Your task to perform on an android device: find snoozed emails in the gmail app Image 0: 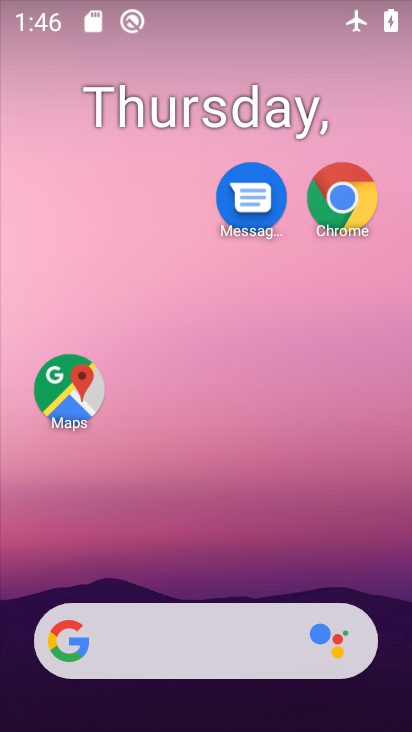
Step 0: click (218, 390)
Your task to perform on an android device: find snoozed emails in the gmail app Image 1: 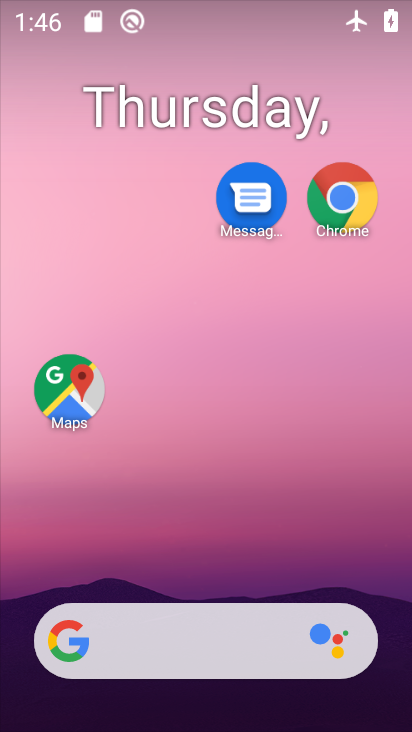
Step 1: drag from (230, 551) to (274, 53)
Your task to perform on an android device: find snoozed emails in the gmail app Image 2: 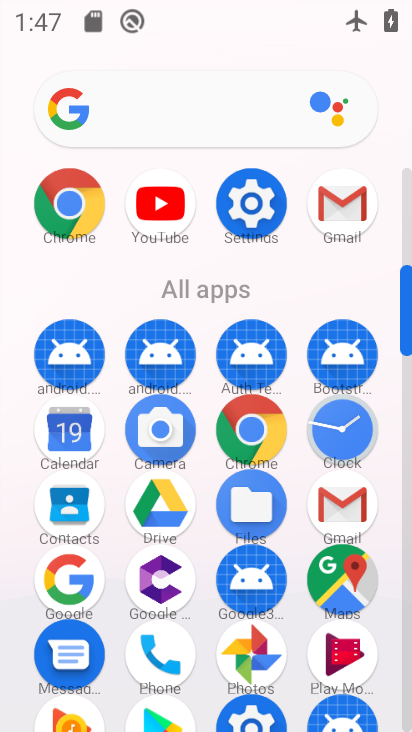
Step 2: click (347, 515)
Your task to perform on an android device: find snoozed emails in the gmail app Image 3: 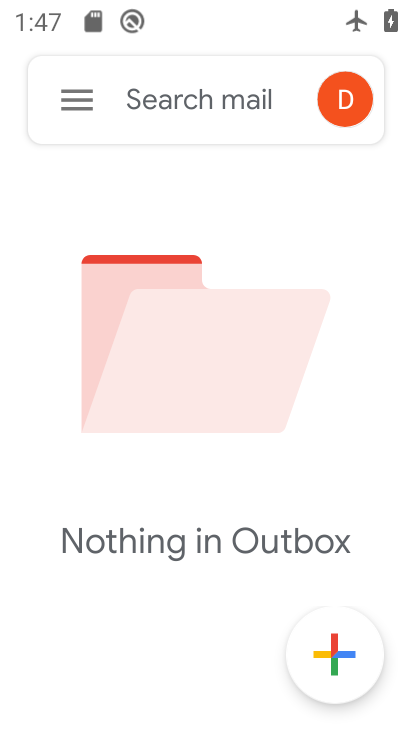
Step 3: click (76, 95)
Your task to perform on an android device: find snoozed emails in the gmail app Image 4: 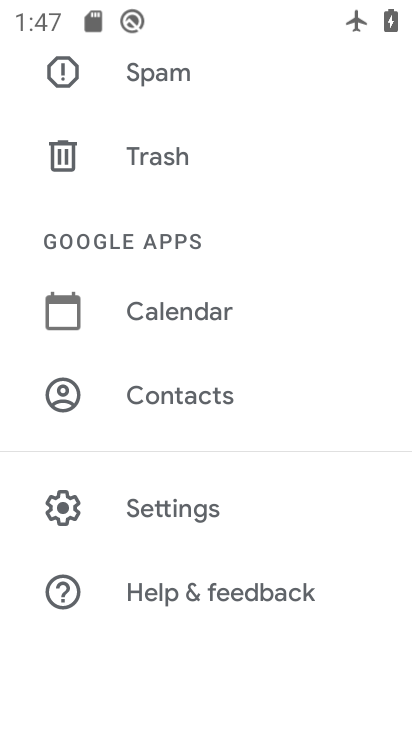
Step 4: drag from (206, 298) to (198, 578)
Your task to perform on an android device: find snoozed emails in the gmail app Image 5: 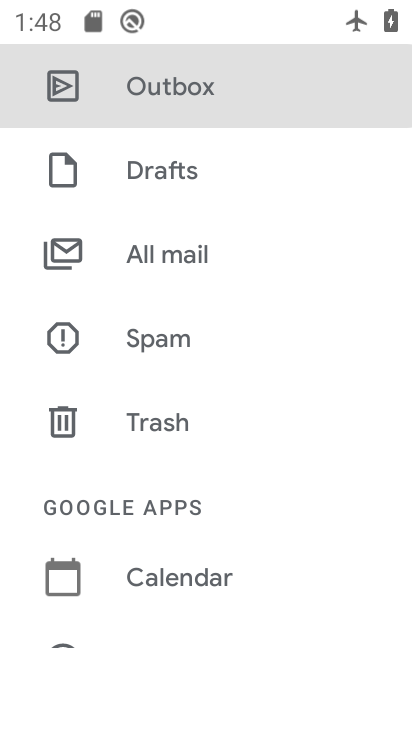
Step 5: drag from (248, 232) to (219, 497)
Your task to perform on an android device: find snoozed emails in the gmail app Image 6: 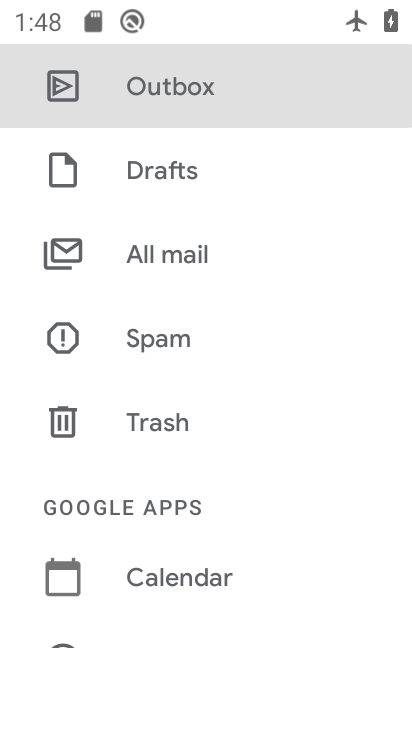
Step 6: click (183, 491)
Your task to perform on an android device: find snoozed emails in the gmail app Image 7: 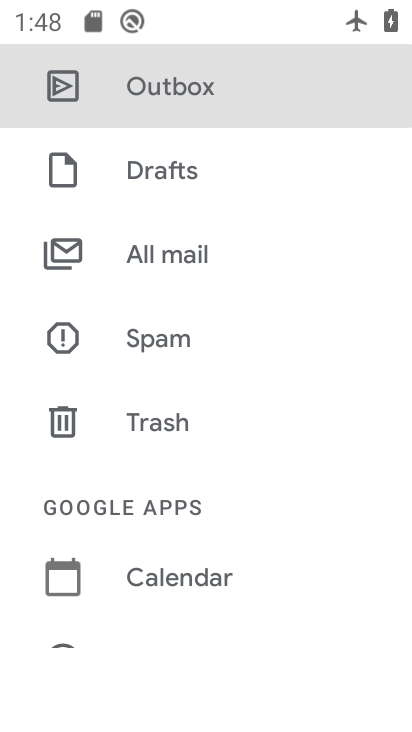
Step 7: drag from (205, 243) to (180, 505)
Your task to perform on an android device: find snoozed emails in the gmail app Image 8: 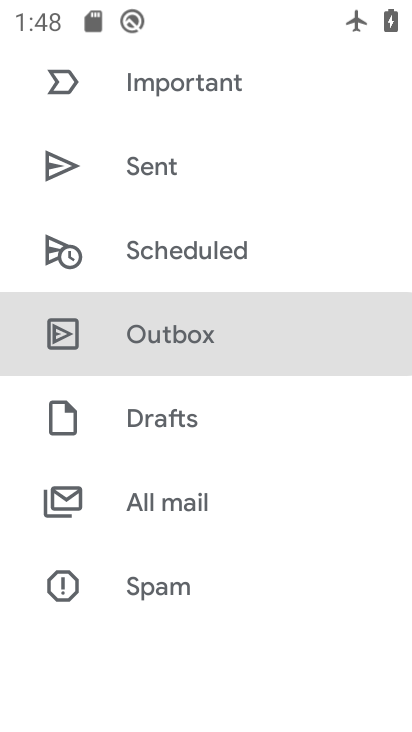
Step 8: drag from (191, 455) to (172, 653)
Your task to perform on an android device: find snoozed emails in the gmail app Image 9: 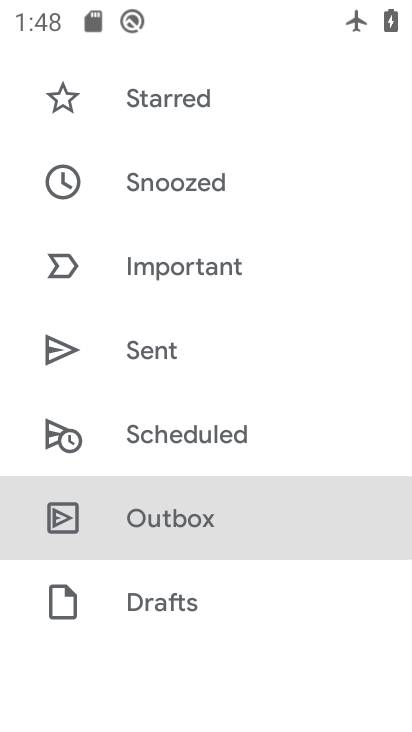
Step 9: drag from (243, 257) to (176, 616)
Your task to perform on an android device: find snoozed emails in the gmail app Image 10: 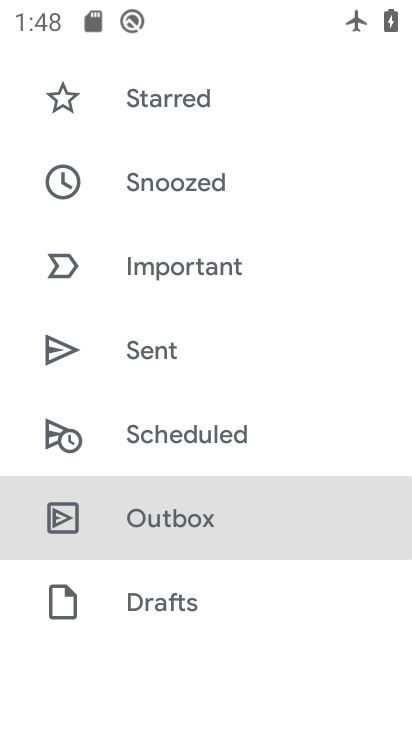
Step 10: drag from (204, 300) to (193, 603)
Your task to perform on an android device: find snoozed emails in the gmail app Image 11: 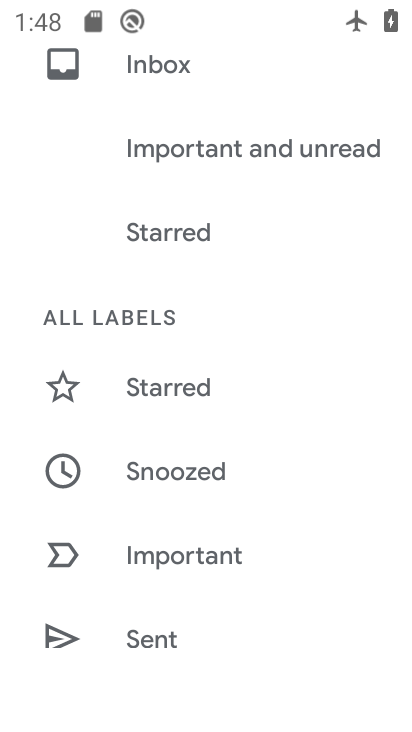
Step 11: drag from (223, 304) to (209, 673)
Your task to perform on an android device: find snoozed emails in the gmail app Image 12: 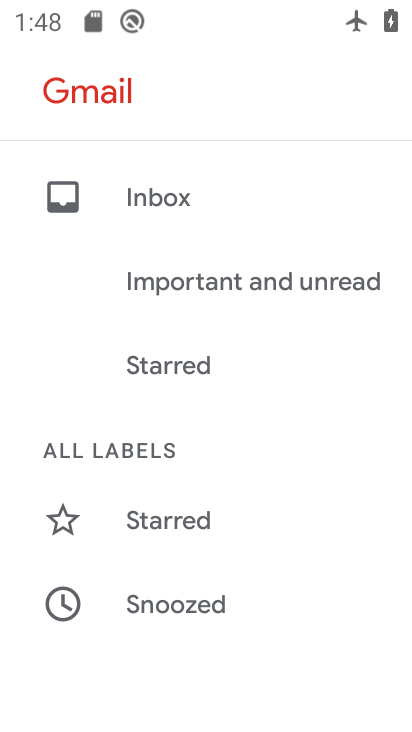
Step 12: click (166, 603)
Your task to perform on an android device: find snoozed emails in the gmail app Image 13: 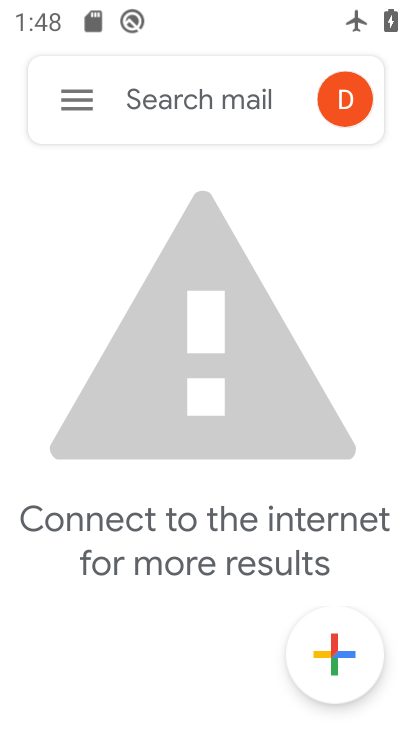
Step 13: task complete